Your task to perform on an android device: change the clock display to digital Image 0: 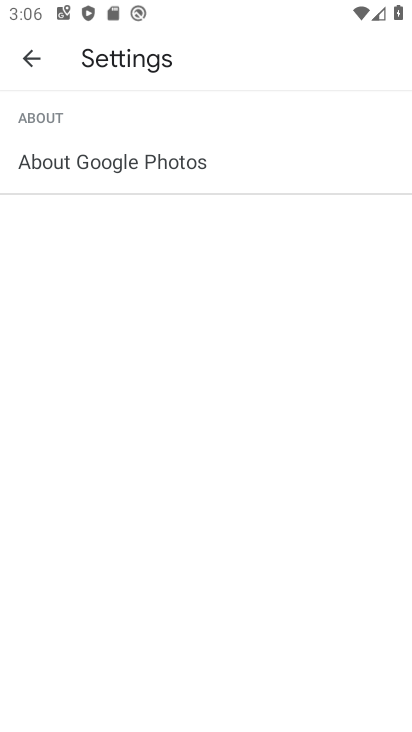
Step 0: press home button
Your task to perform on an android device: change the clock display to digital Image 1: 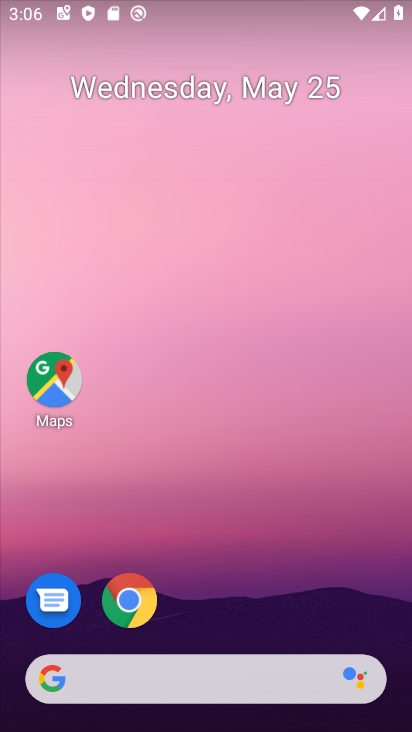
Step 1: drag from (56, 554) to (252, 196)
Your task to perform on an android device: change the clock display to digital Image 2: 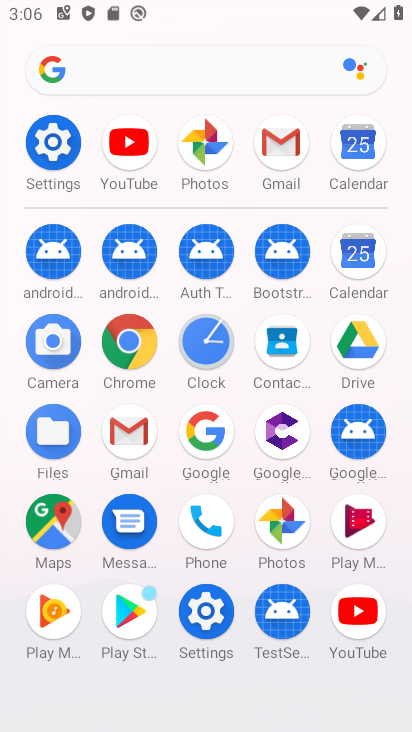
Step 2: click (209, 349)
Your task to perform on an android device: change the clock display to digital Image 3: 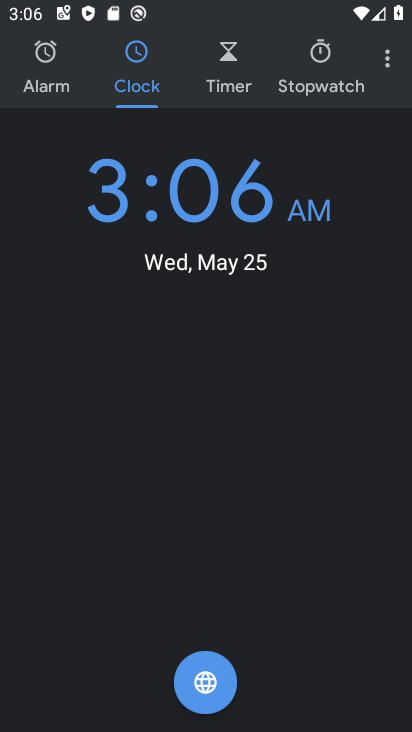
Step 3: click (391, 62)
Your task to perform on an android device: change the clock display to digital Image 4: 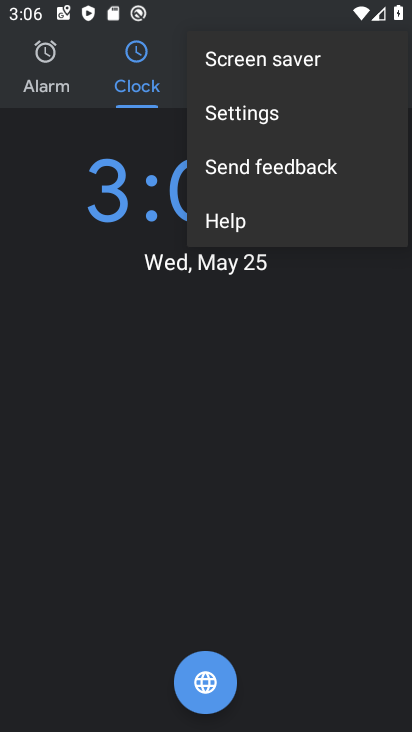
Step 4: click (275, 109)
Your task to perform on an android device: change the clock display to digital Image 5: 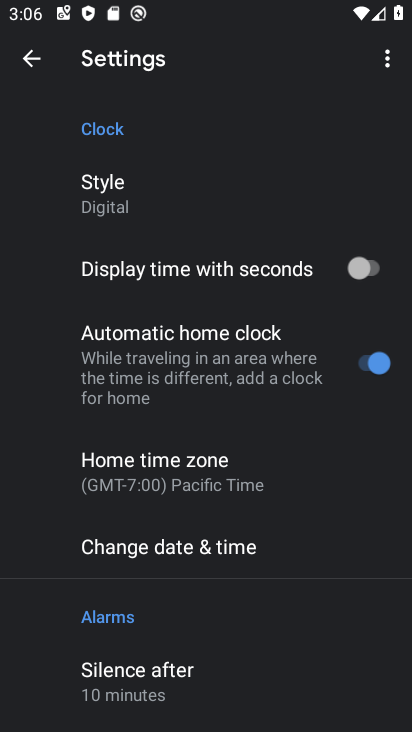
Step 5: task complete